Your task to perform on an android device: Open CNN.com Image 0: 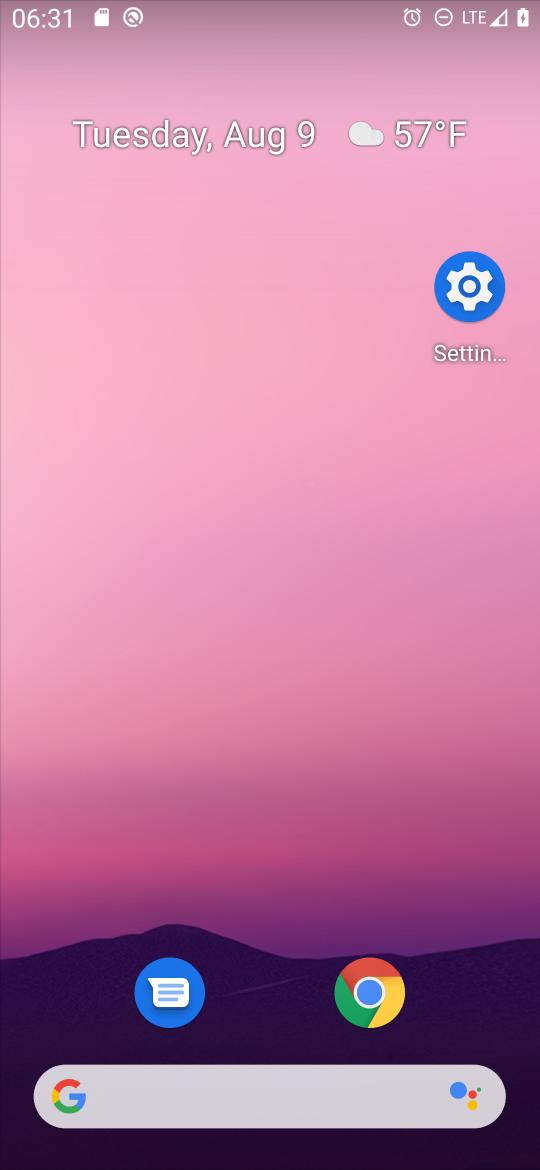
Step 0: drag from (344, 1093) to (231, 31)
Your task to perform on an android device: Open CNN.com Image 1: 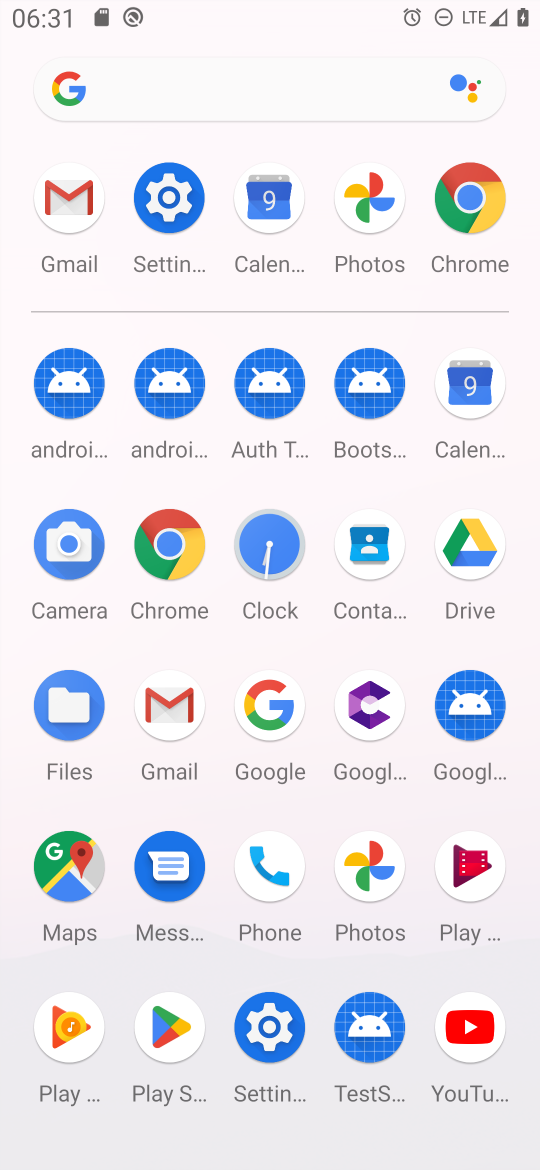
Step 1: click (178, 561)
Your task to perform on an android device: Open CNN.com Image 2: 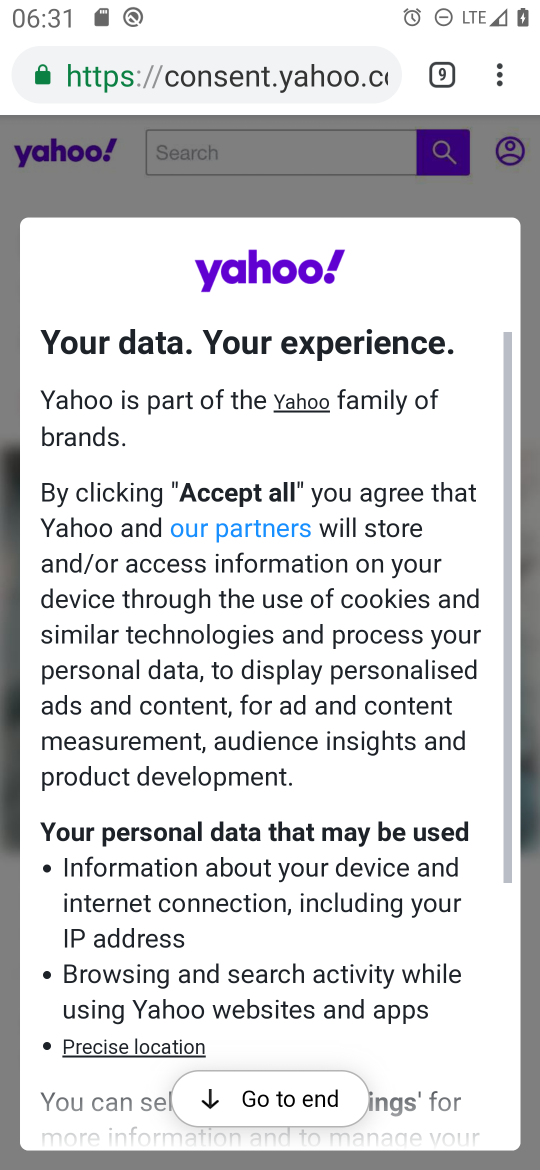
Step 2: click (345, 85)
Your task to perform on an android device: Open CNN.com Image 3: 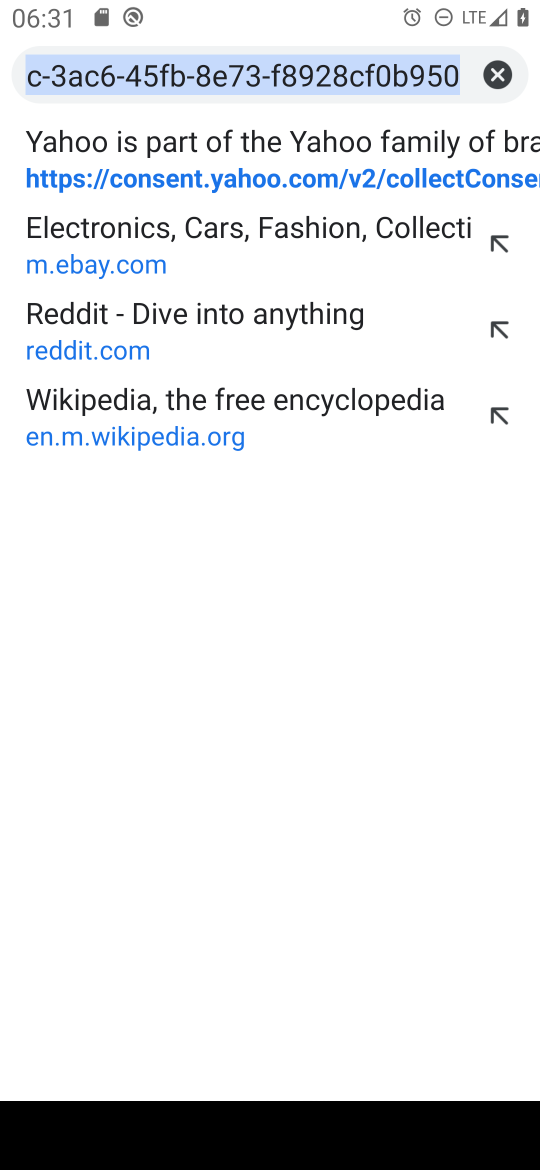
Step 3: type "cnn.com"
Your task to perform on an android device: Open CNN.com Image 4: 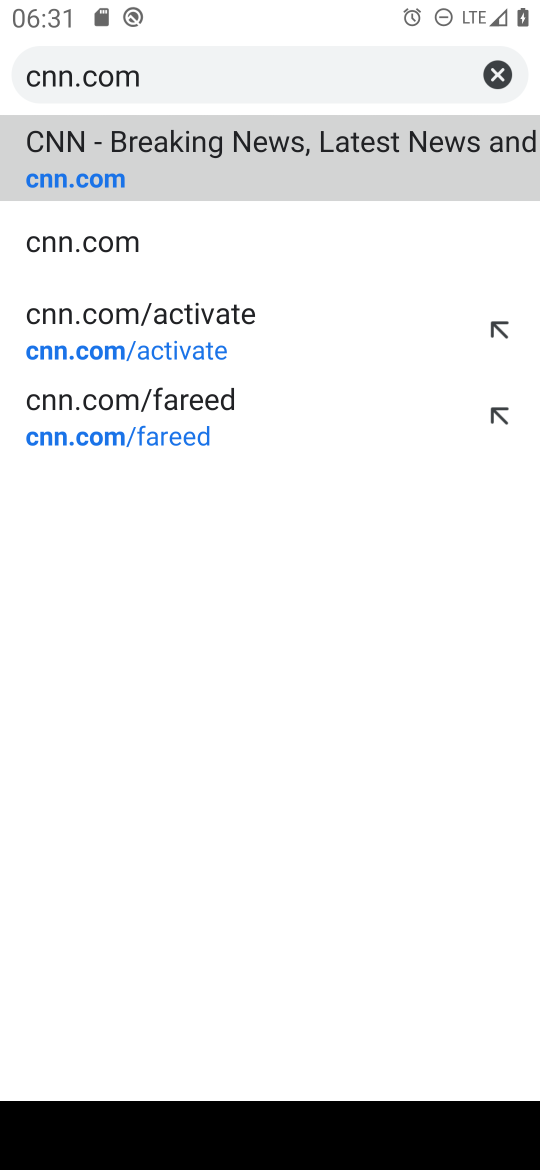
Step 4: click (291, 140)
Your task to perform on an android device: Open CNN.com Image 5: 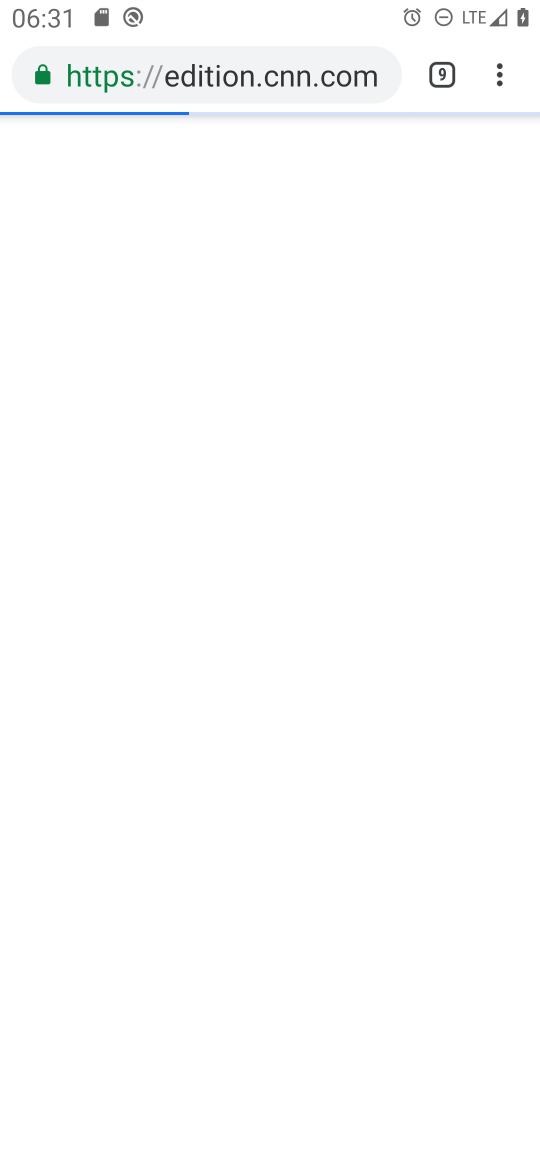
Step 5: task complete